Your task to perform on an android device: Open notification settings Image 0: 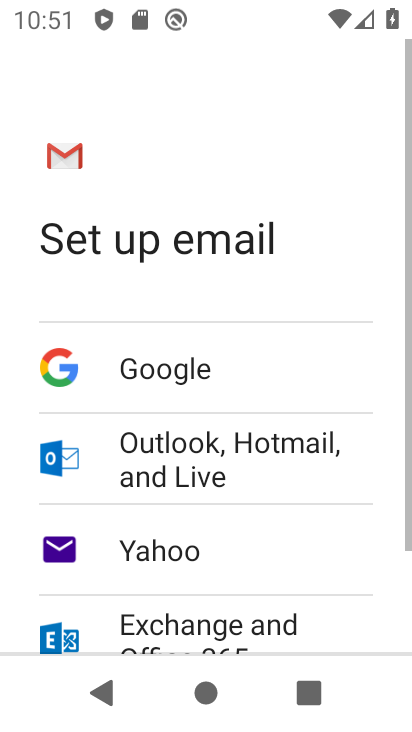
Step 0: press home button
Your task to perform on an android device: Open notification settings Image 1: 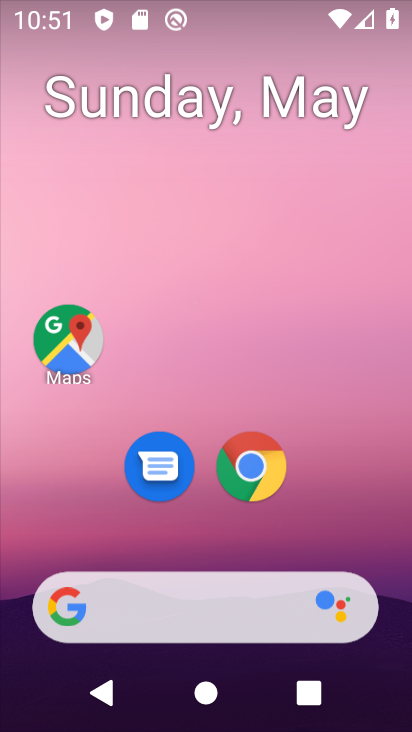
Step 1: drag from (94, 512) to (178, 112)
Your task to perform on an android device: Open notification settings Image 2: 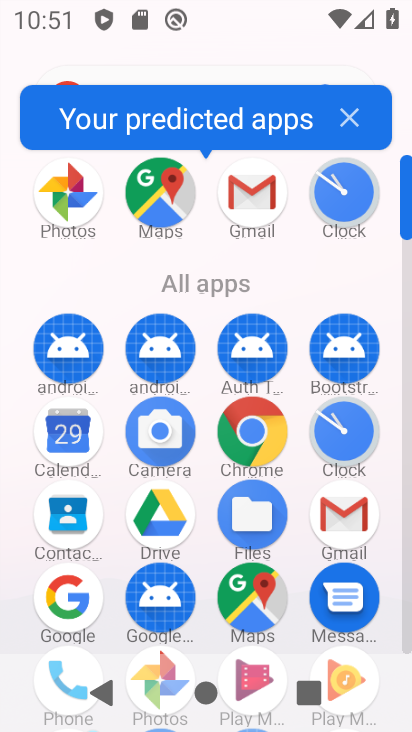
Step 2: drag from (152, 557) to (228, 336)
Your task to perform on an android device: Open notification settings Image 3: 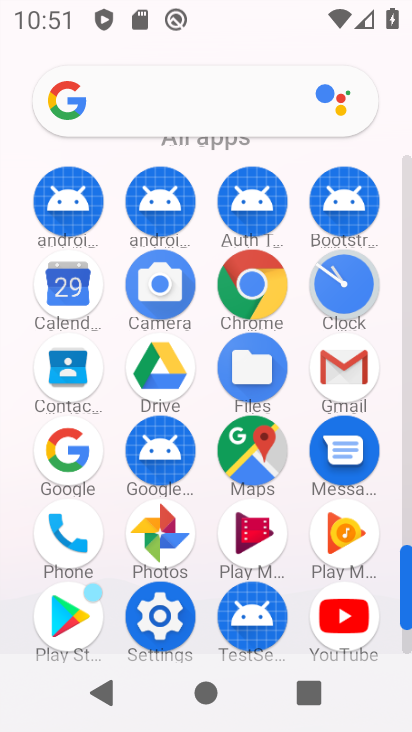
Step 3: click (157, 636)
Your task to perform on an android device: Open notification settings Image 4: 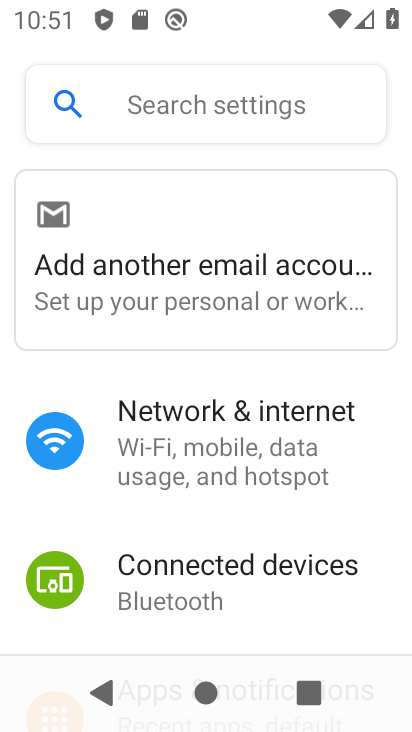
Step 4: drag from (240, 618) to (362, 254)
Your task to perform on an android device: Open notification settings Image 5: 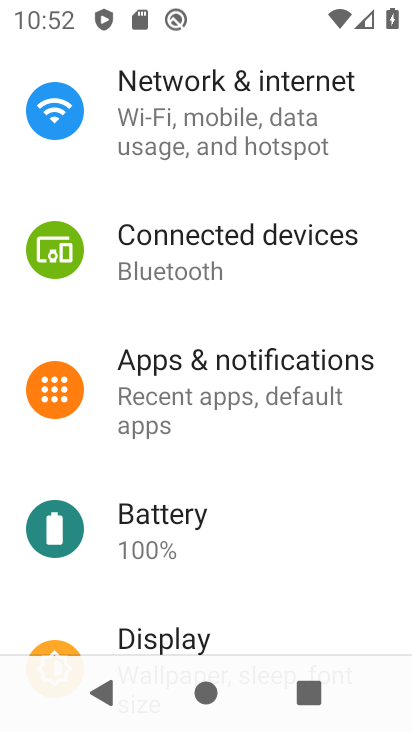
Step 5: drag from (209, 576) to (257, 375)
Your task to perform on an android device: Open notification settings Image 6: 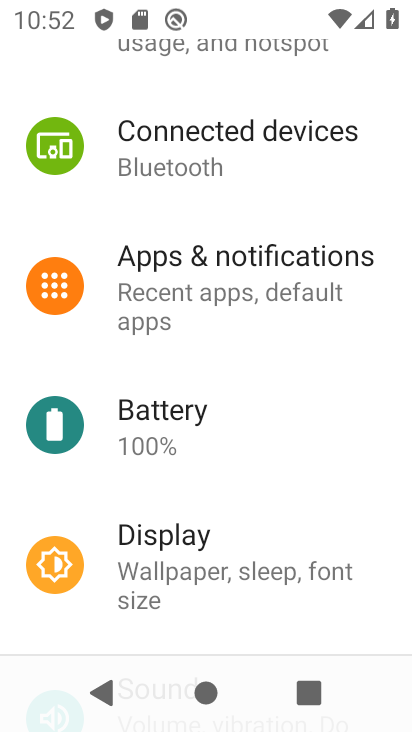
Step 6: click (282, 306)
Your task to perform on an android device: Open notification settings Image 7: 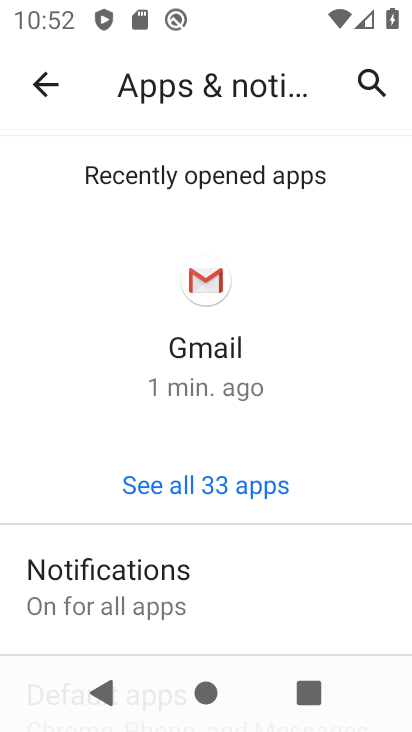
Step 7: task complete